Your task to perform on an android device: turn off javascript in the chrome app Image 0: 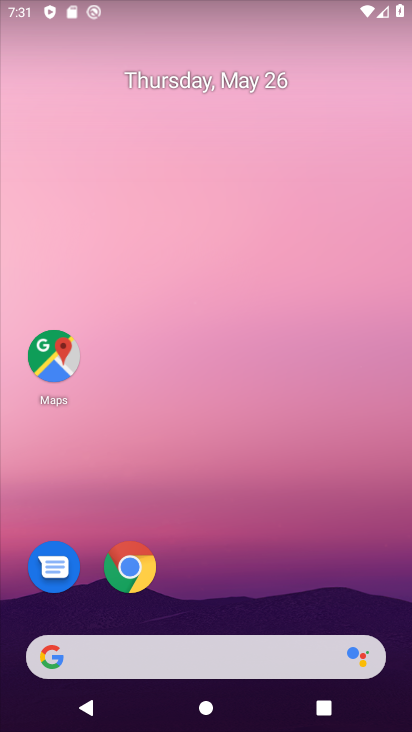
Step 0: click (110, 567)
Your task to perform on an android device: turn off javascript in the chrome app Image 1: 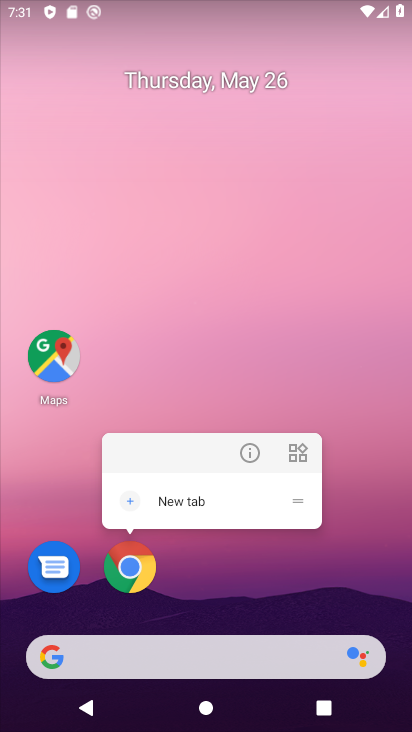
Step 1: click (126, 570)
Your task to perform on an android device: turn off javascript in the chrome app Image 2: 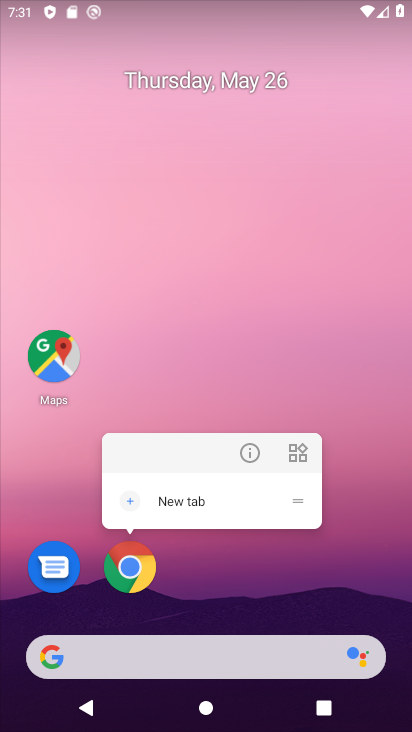
Step 2: click (139, 582)
Your task to perform on an android device: turn off javascript in the chrome app Image 3: 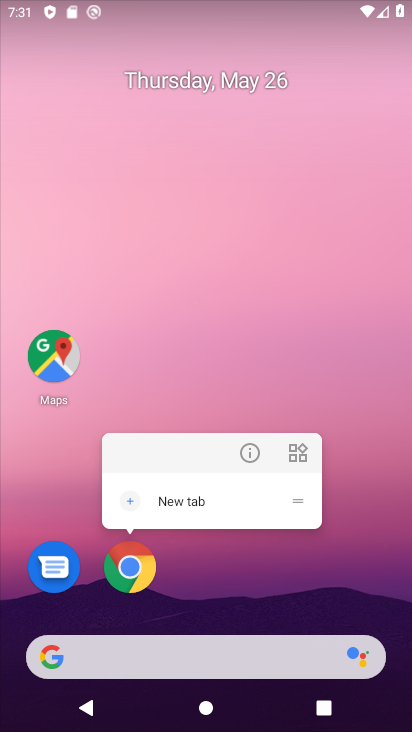
Step 3: click (138, 571)
Your task to perform on an android device: turn off javascript in the chrome app Image 4: 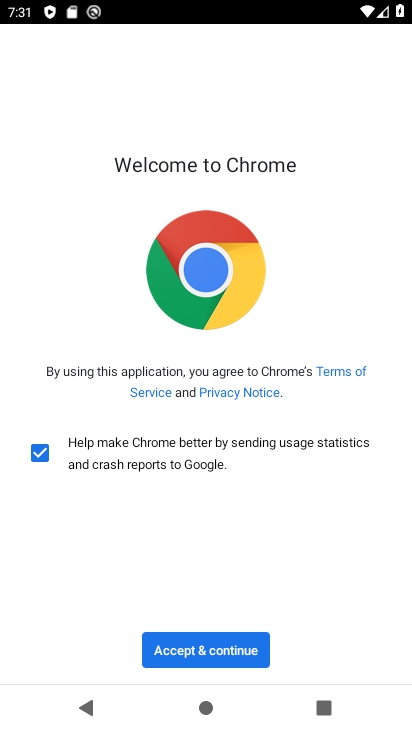
Step 4: click (244, 645)
Your task to perform on an android device: turn off javascript in the chrome app Image 5: 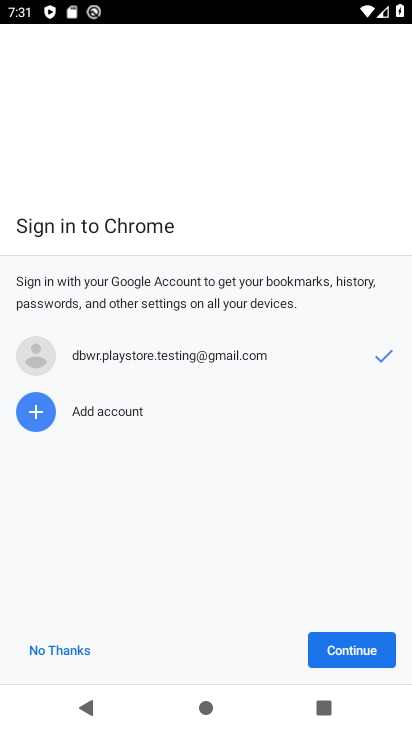
Step 5: click (341, 656)
Your task to perform on an android device: turn off javascript in the chrome app Image 6: 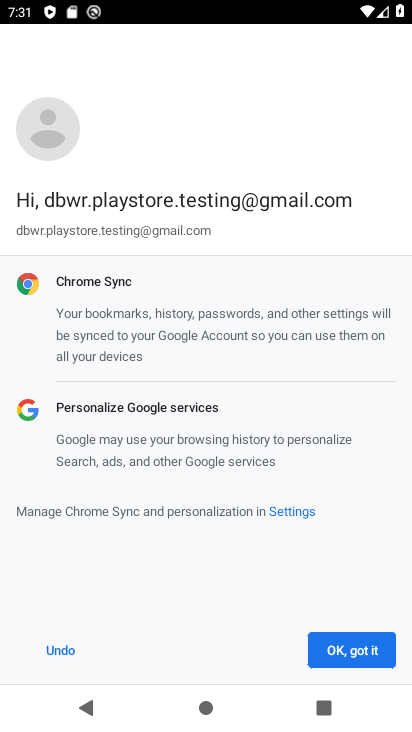
Step 6: click (341, 654)
Your task to perform on an android device: turn off javascript in the chrome app Image 7: 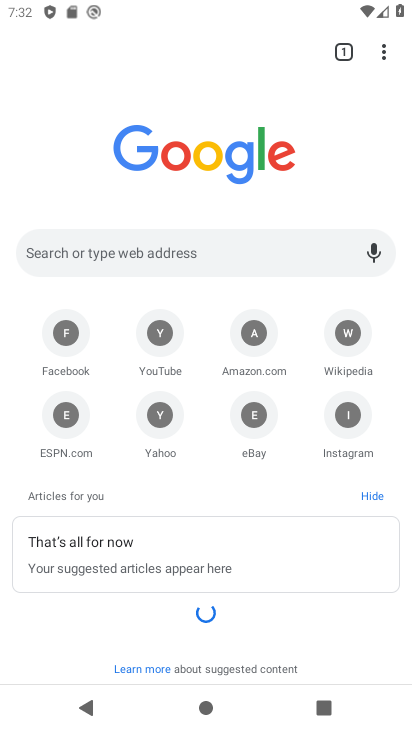
Step 7: drag from (383, 60) to (233, 436)
Your task to perform on an android device: turn off javascript in the chrome app Image 8: 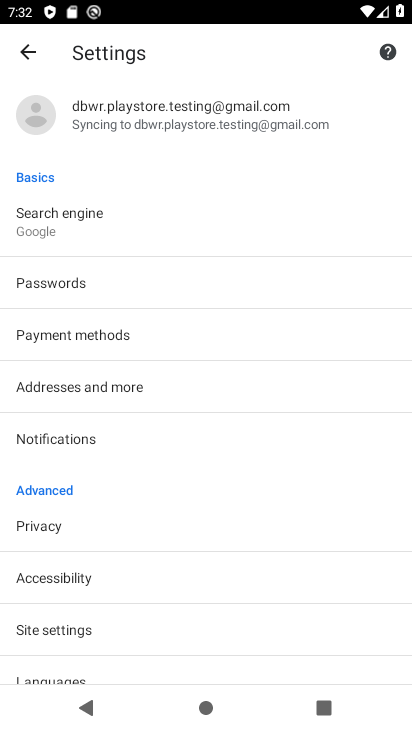
Step 8: drag from (146, 653) to (259, 385)
Your task to perform on an android device: turn off javascript in the chrome app Image 9: 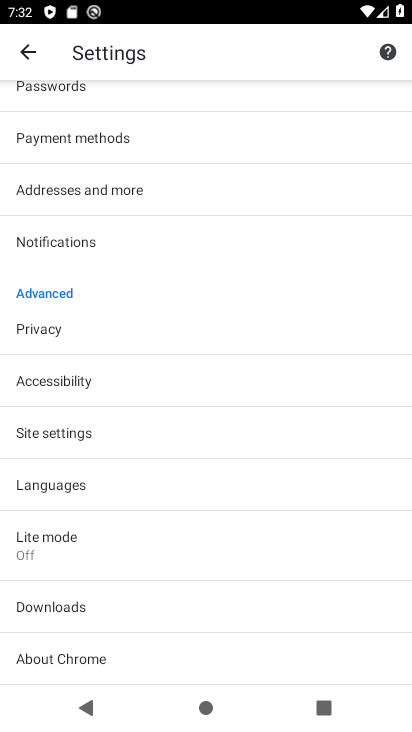
Step 9: click (44, 423)
Your task to perform on an android device: turn off javascript in the chrome app Image 10: 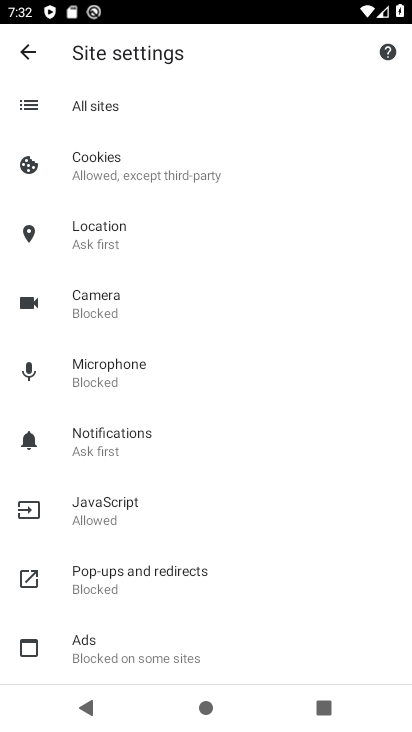
Step 10: click (114, 507)
Your task to perform on an android device: turn off javascript in the chrome app Image 11: 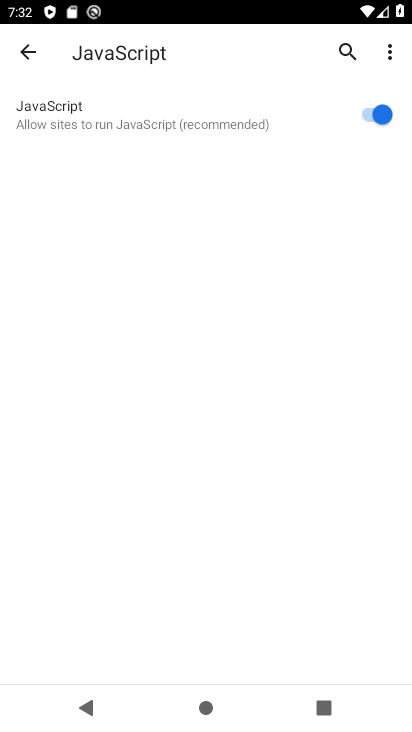
Step 11: click (366, 115)
Your task to perform on an android device: turn off javascript in the chrome app Image 12: 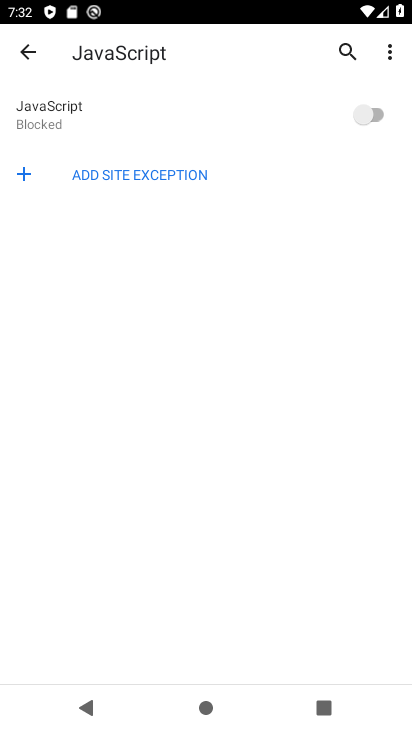
Step 12: task complete